Your task to perform on an android device: change text size in settings app Image 0: 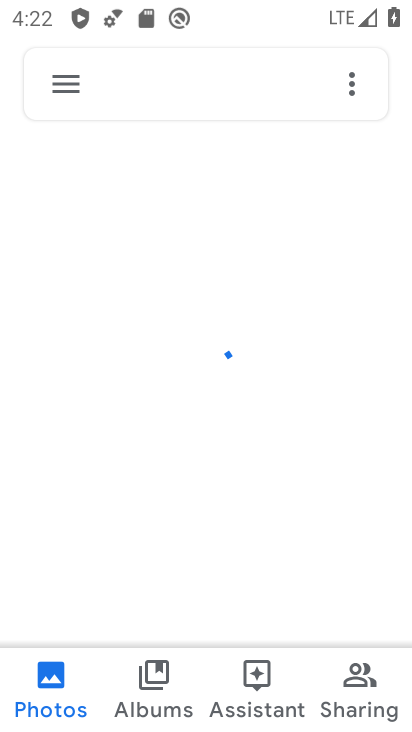
Step 0: press back button
Your task to perform on an android device: change text size in settings app Image 1: 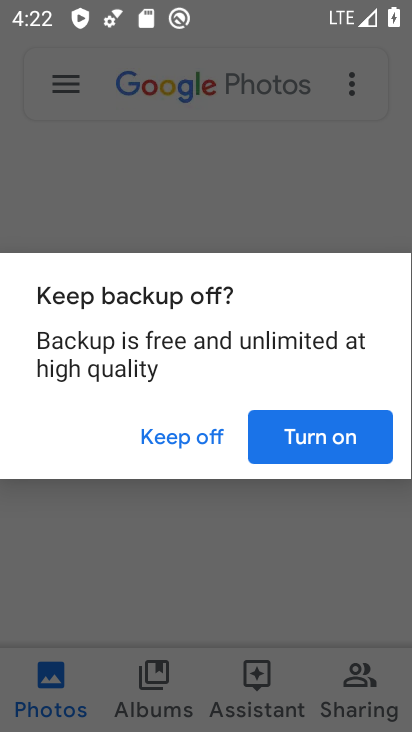
Step 1: press back button
Your task to perform on an android device: change text size in settings app Image 2: 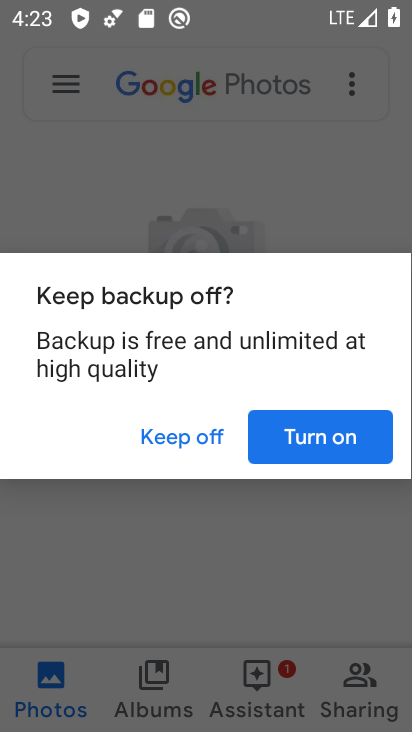
Step 2: press home button
Your task to perform on an android device: change text size in settings app Image 3: 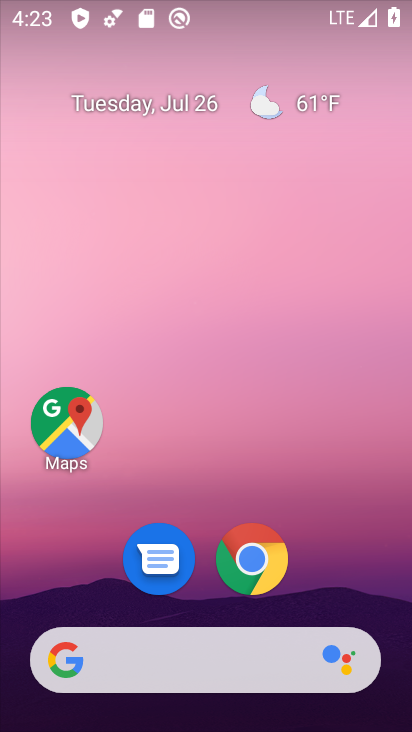
Step 3: drag from (64, 575) to (232, 4)
Your task to perform on an android device: change text size in settings app Image 4: 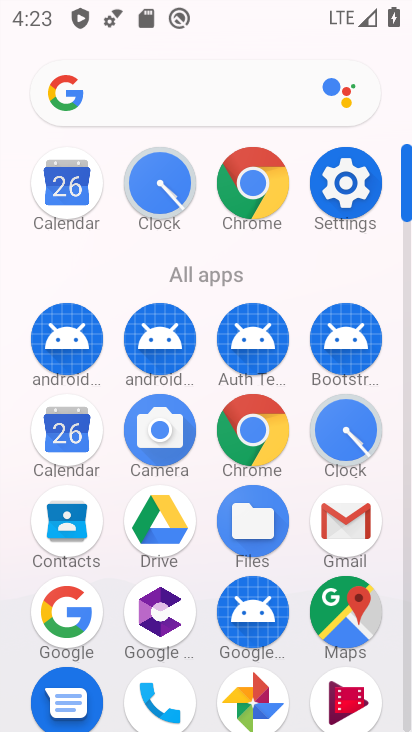
Step 4: click (348, 193)
Your task to perform on an android device: change text size in settings app Image 5: 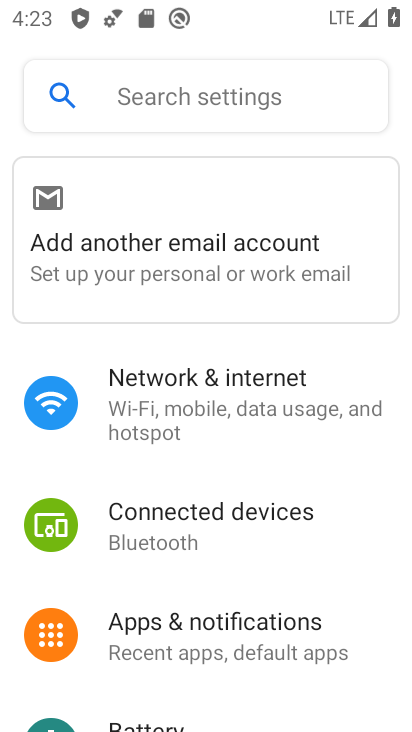
Step 5: click (220, 98)
Your task to perform on an android device: change text size in settings app Image 6: 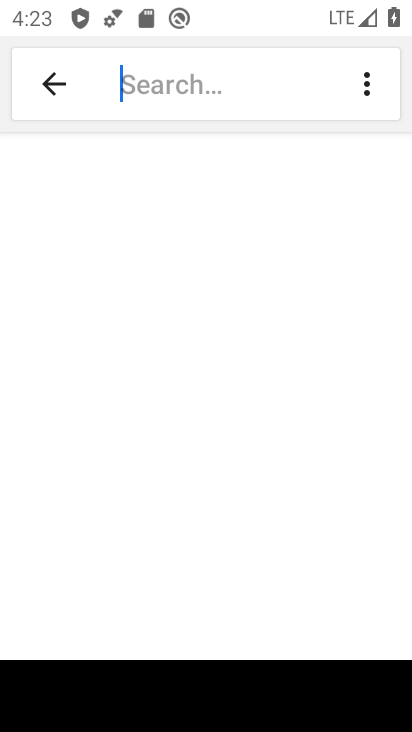
Step 6: type "text size"
Your task to perform on an android device: change text size in settings app Image 7: 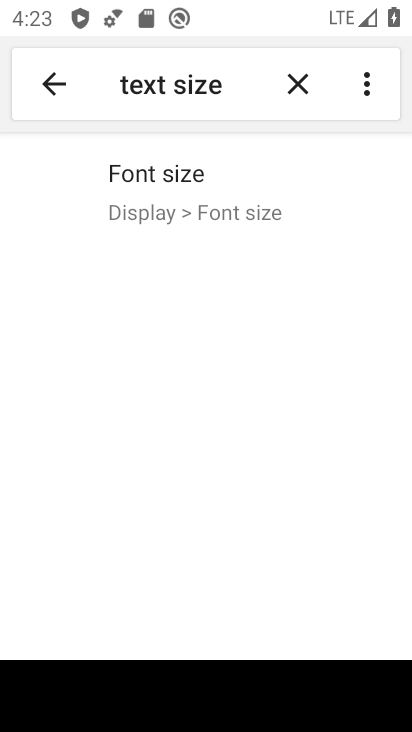
Step 7: click (183, 169)
Your task to perform on an android device: change text size in settings app Image 8: 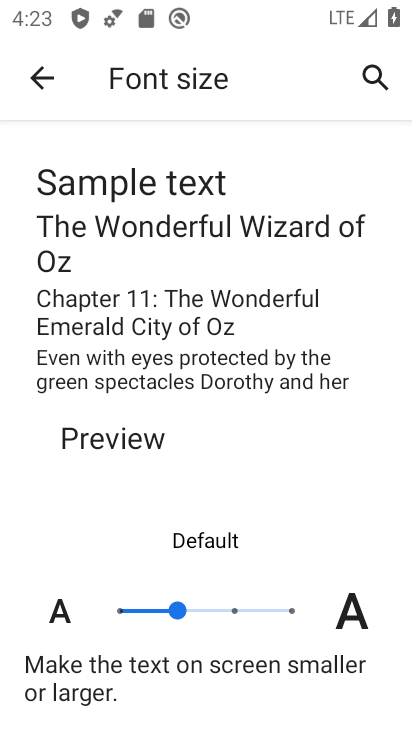
Step 8: task complete